Your task to perform on an android device: make emails show in primary in the gmail app Image 0: 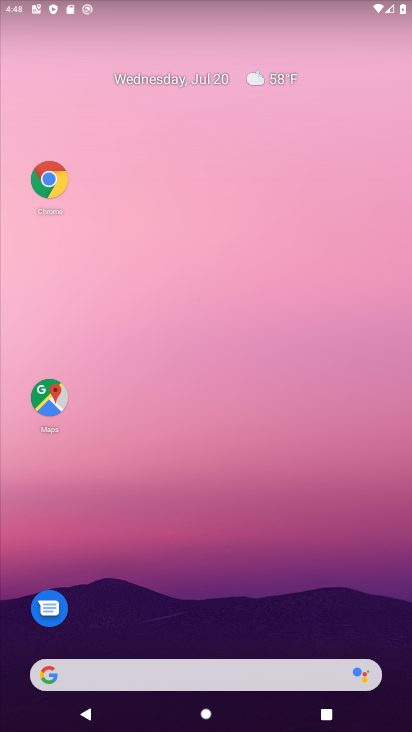
Step 0: drag from (259, 642) to (79, 97)
Your task to perform on an android device: make emails show in primary in the gmail app Image 1: 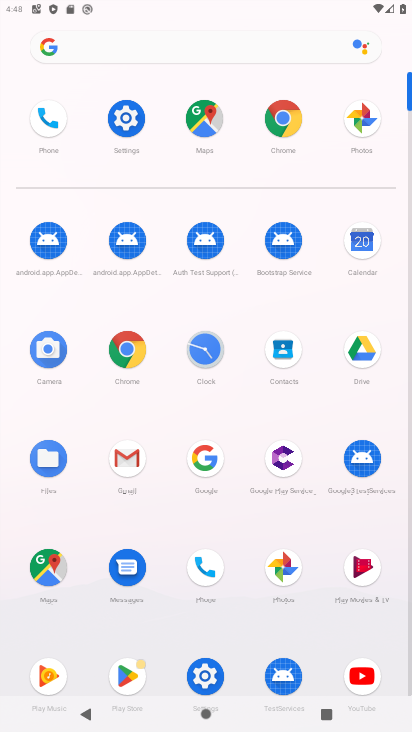
Step 1: click (126, 467)
Your task to perform on an android device: make emails show in primary in the gmail app Image 2: 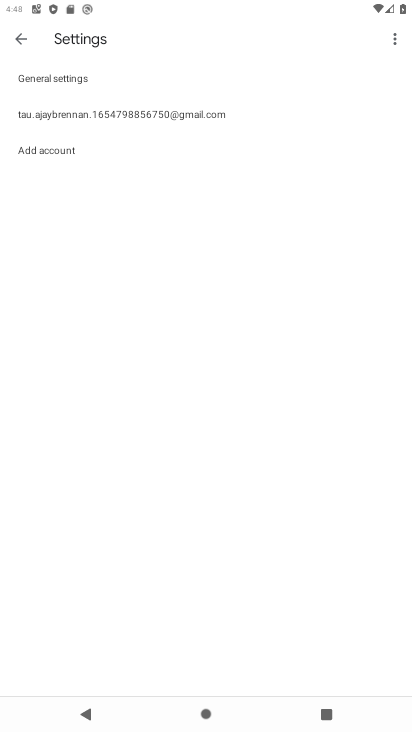
Step 2: click (138, 123)
Your task to perform on an android device: make emails show in primary in the gmail app Image 3: 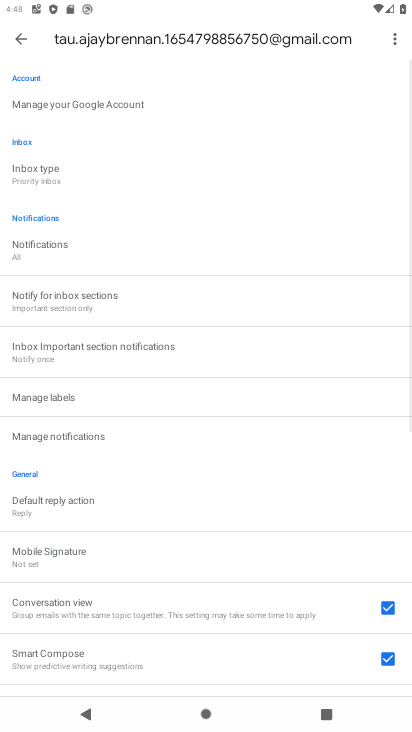
Step 3: click (31, 161)
Your task to perform on an android device: make emails show in primary in the gmail app Image 4: 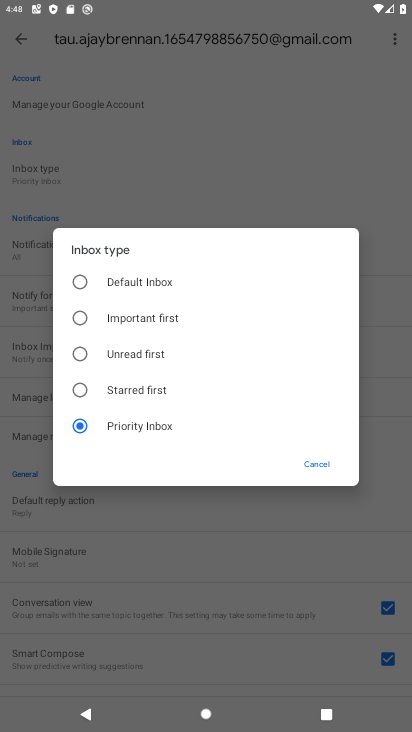
Step 4: click (109, 284)
Your task to perform on an android device: make emails show in primary in the gmail app Image 5: 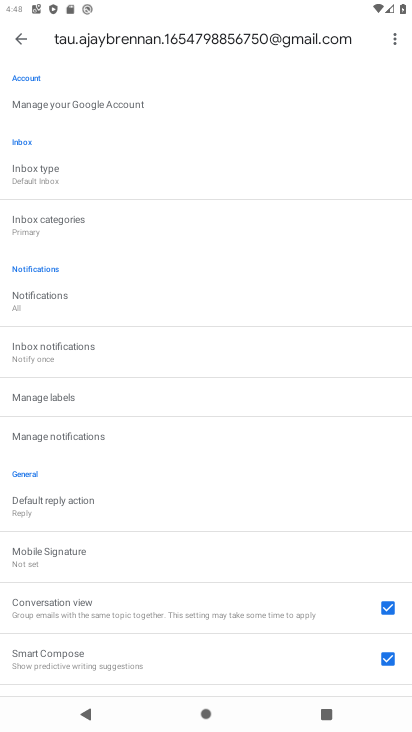
Step 5: click (42, 227)
Your task to perform on an android device: make emails show in primary in the gmail app Image 6: 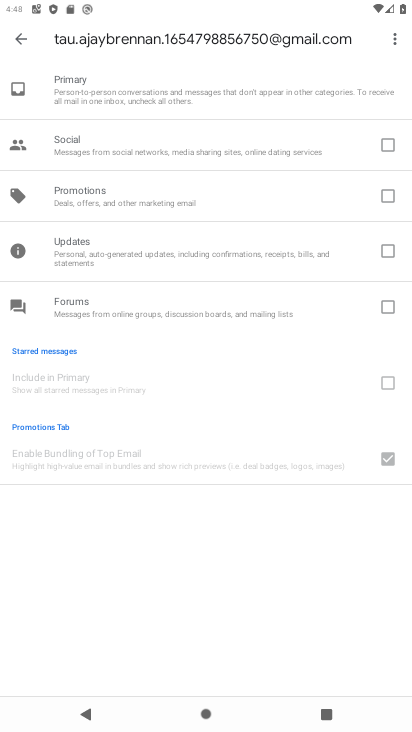
Step 6: click (376, 151)
Your task to perform on an android device: make emails show in primary in the gmail app Image 7: 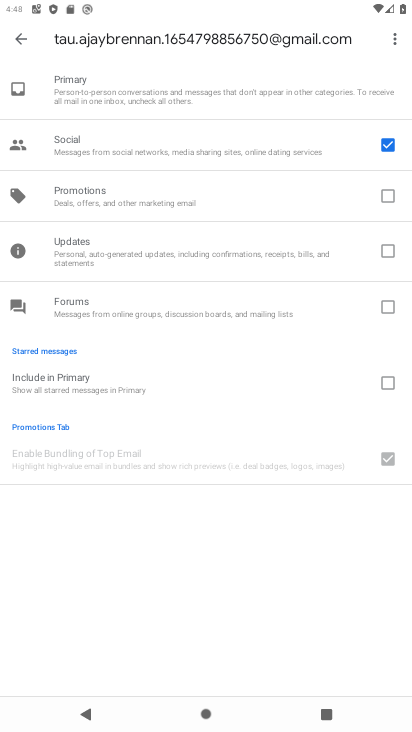
Step 7: click (378, 194)
Your task to perform on an android device: make emails show in primary in the gmail app Image 8: 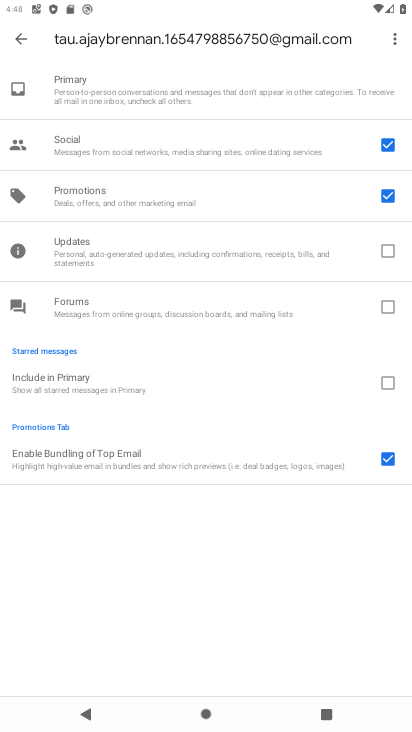
Step 8: click (384, 243)
Your task to perform on an android device: make emails show in primary in the gmail app Image 9: 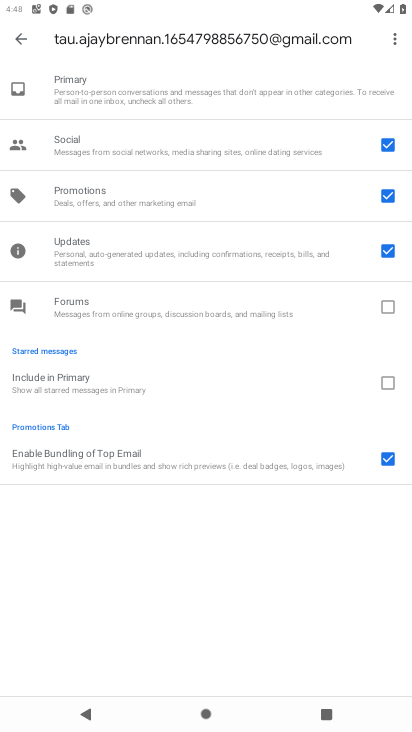
Step 9: click (379, 270)
Your task to perform on an android device: make emails show in primary in the gmail app Image 10: 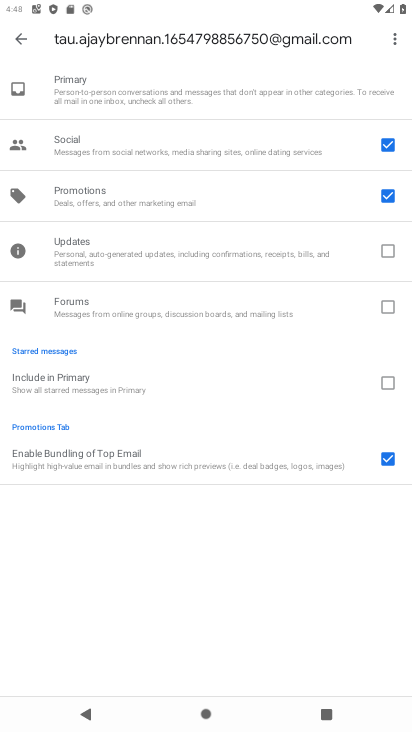
Step 10: click (379, 270)
Your task to perform on an android device: make emails show in primary in the gmail app Image 11: 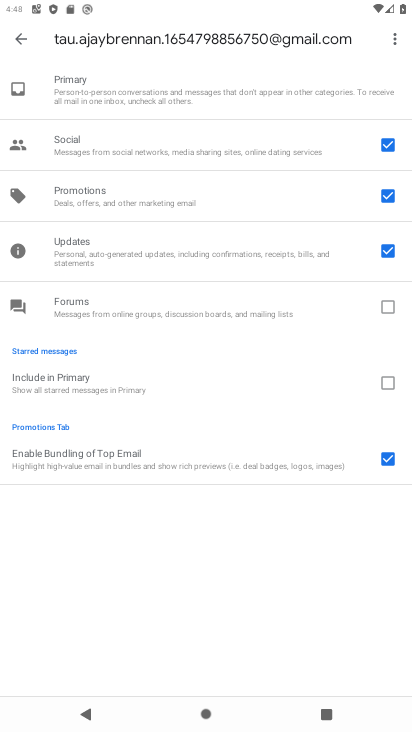
Step 11: click (379, 290)
Your task to perform on an android device: make emails show in primary in the gmail app Image 12: 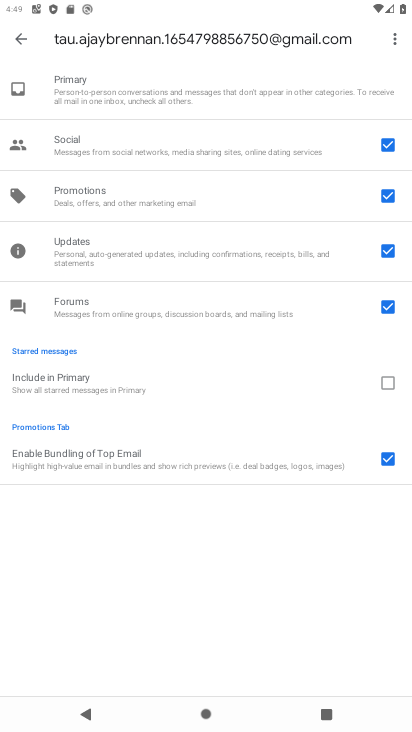
Step 12: task complete